Your task to perform on an android device: turn on javascript in the chrome app Image 0: 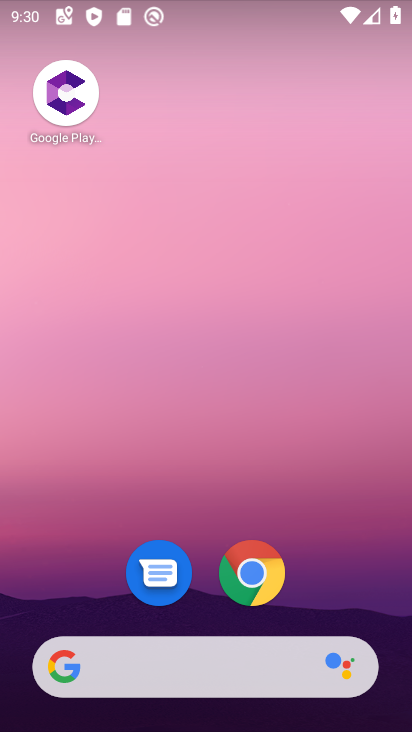
Step 0: click (236, 580)
Your task to perform on an android device: turn on javascript in the chrome app Image 1: 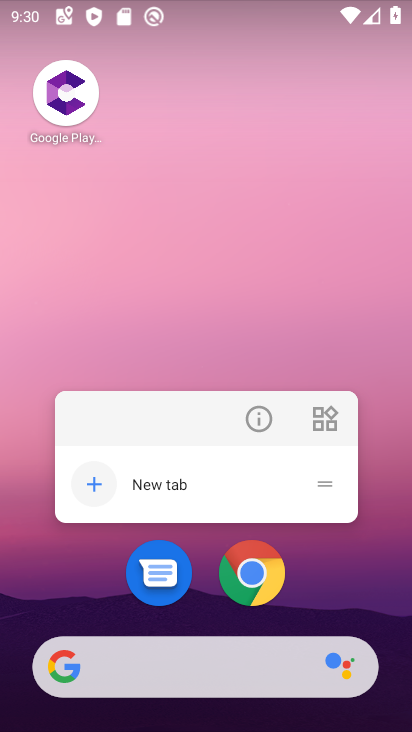
Step 1: click (264, 585)
Your task to perform on an android device: turn on javascript in the chrome app Image 2: 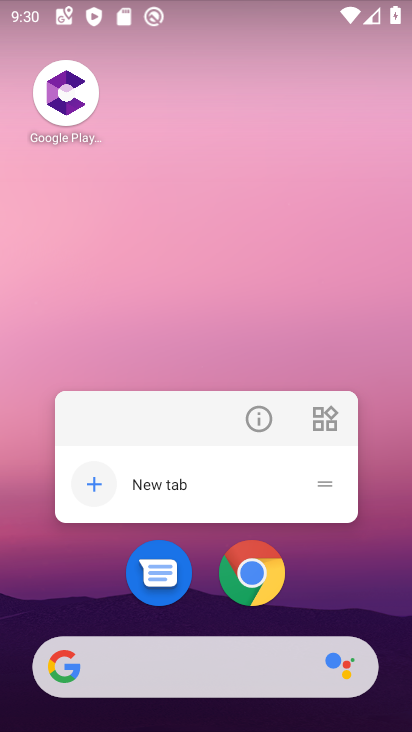
Step 2: click (254, 723)
Your task to perform on an android device: turn on javascript in the chrome app Image 3: 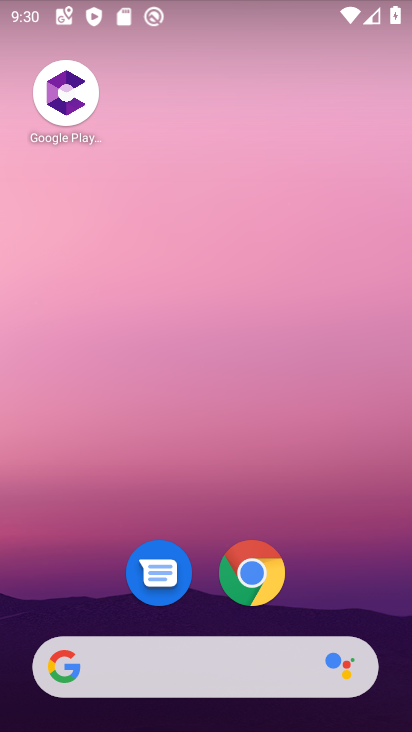
Step 3: click (245, 602)
Your task to perform on an android device: turn on javascript in the chrome app Image 4: 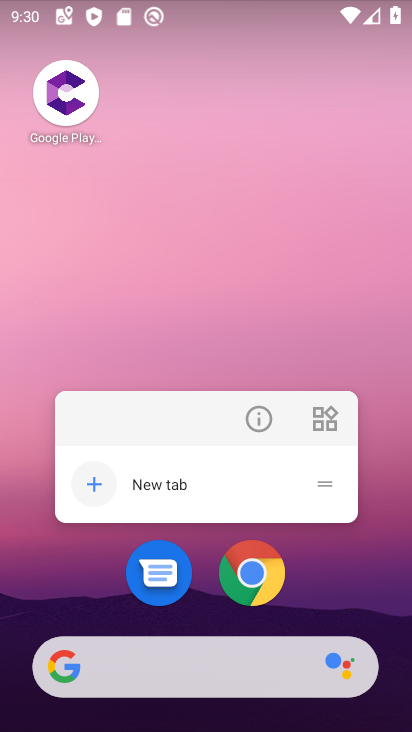
Step 4: click (245, 602)
Your task to perform on an android device: turn on javascript in the chrome app Image 5: 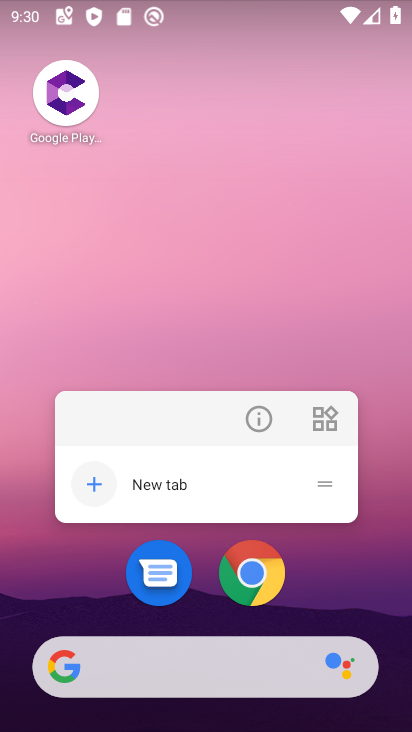
Step 5: click (245, 602)
Your task to perform on an android device: turn on javascript in the chrome app Image 6: 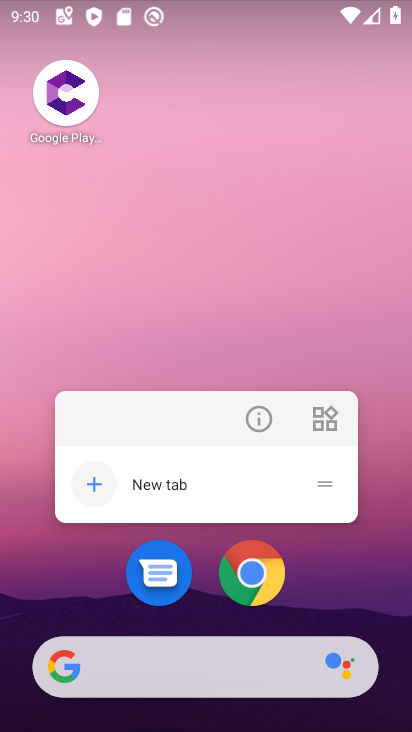
Step 6: click (245, 602)
Your task to perform on an android device: turn on javascript in the chrome app Image 7: 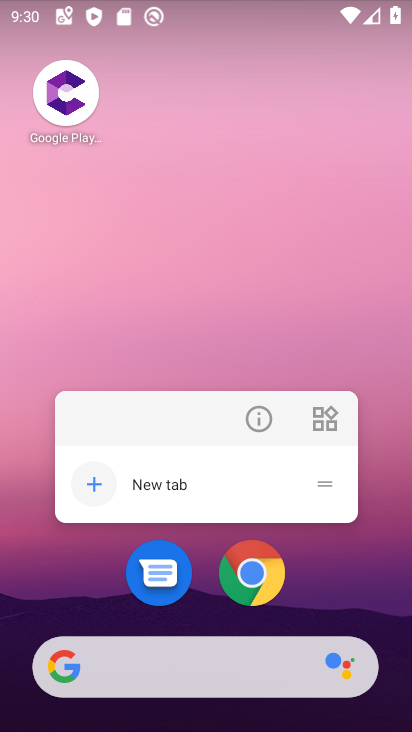
Step 7: click (245, 602)
Your task to perform on an android device: turn on javascript in the chrome app Image 8: 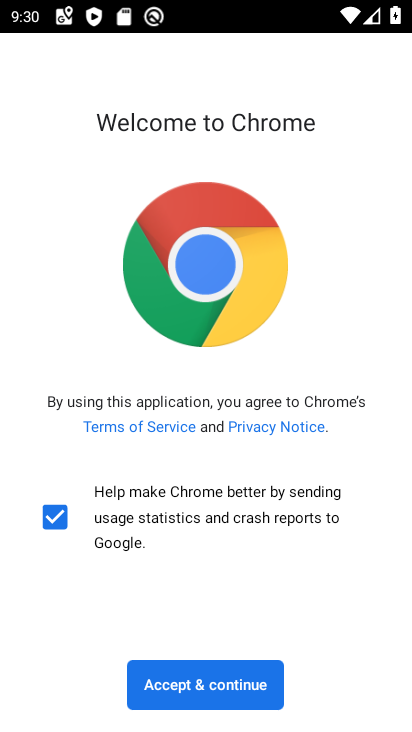
Step 8: click (230, 702)
Your task to perform on an android device: turn on javascript in the chrome app Image 9: 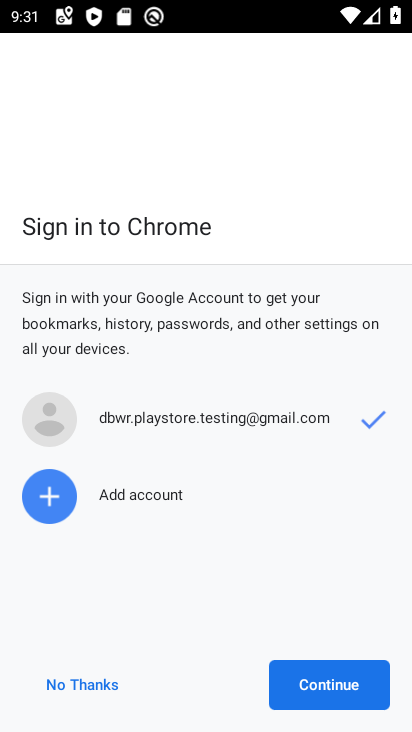
Step 9: click (380, 690)
Your task to perform on an android device: turn on javascript in the chrome app Image 10: 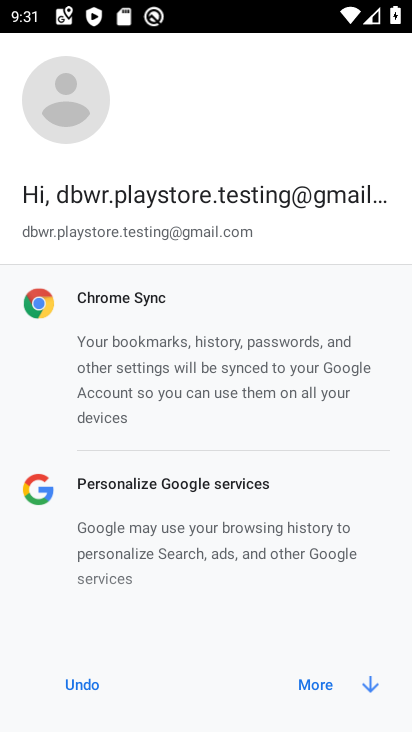
Step 10: click (380, 690)
Your task to perform on an android device: turn on javascript in the chrome app Image 11: 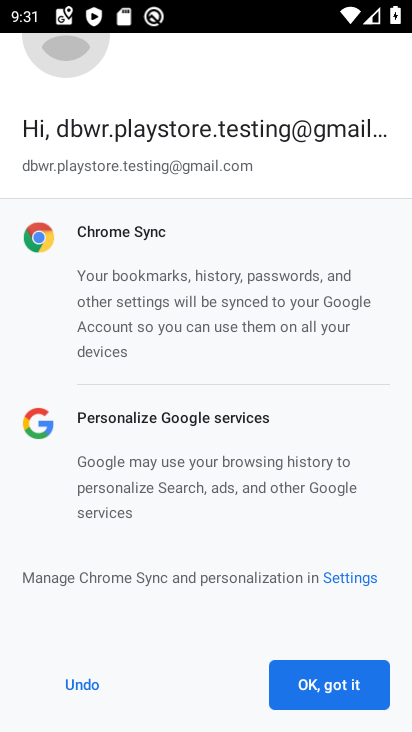
Step 11: click (380, 690)
Your task to perform on an android device: turn on javascript in the chrome app Image 12: 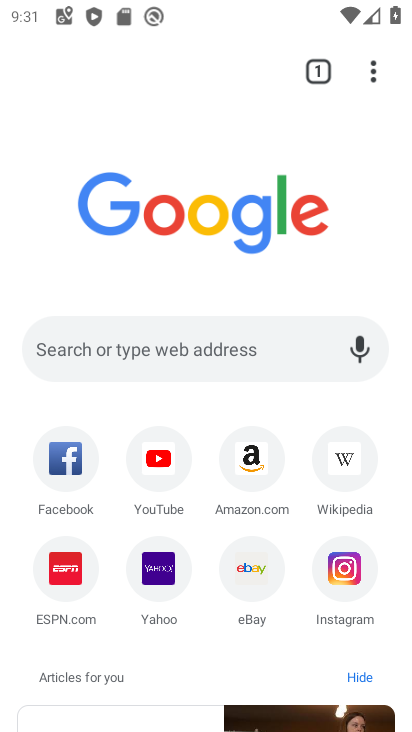
Step 12: drag from (375, 65) to (139, 608)
Your task to perform on an android device: turn on javascript in the chrome app Image 13: 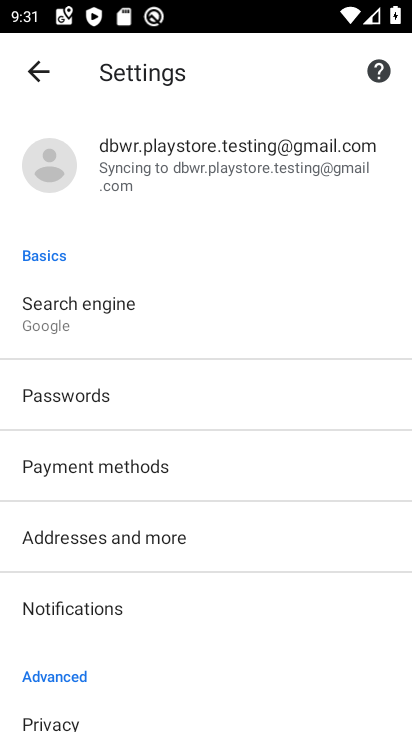
Step 13: drag from (302, 615) to (305, 291)
Your task to perform on an android device: turn on javascript in the chrome app Image 14: 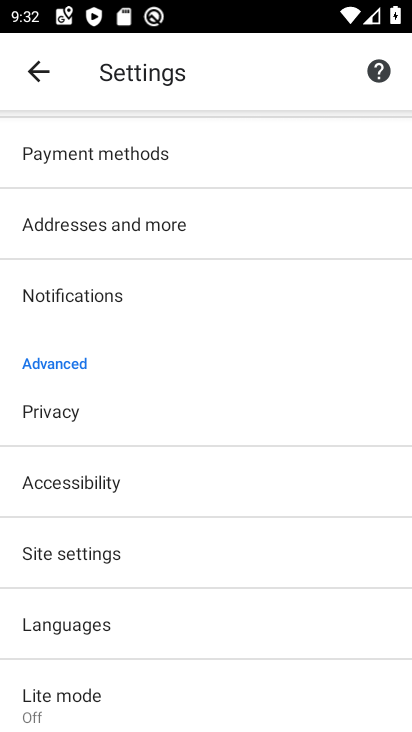
Step 14: click (100, 568)
Your task to perform on an android device: turn on javascript in the chrome app Image 15: 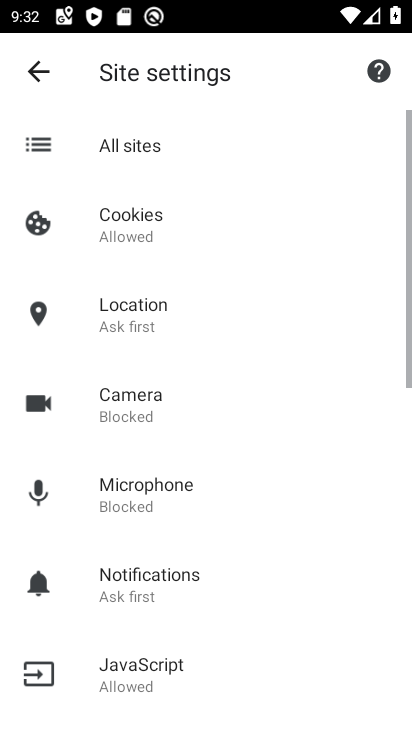
Step 15: drag from (177, 596) to (214, 169)
Your task to perform on an android device: turn on javascript in the chrome app Image 16: 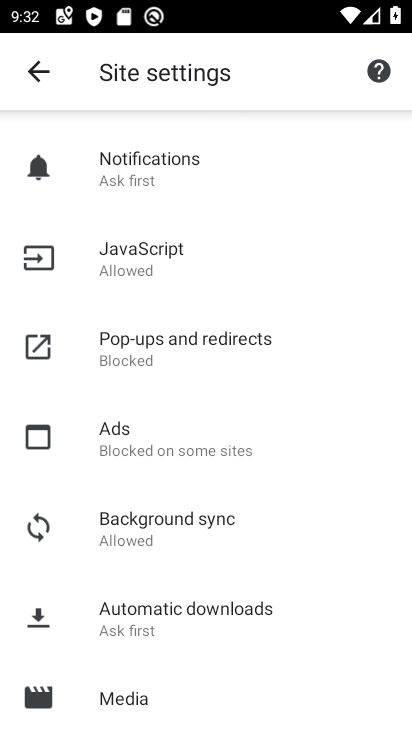
Step 16: drag from (153, 661) to (180, 730)
Your task to perform on an android device: turn on javascript in the chrome app Image 17: 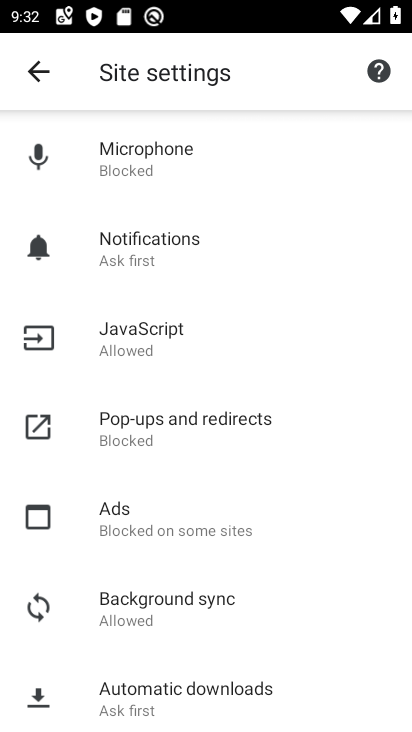
Step 17: click (190, 362)
Your task to perform on an android device: turn on javascript in the chrome app Image 18: 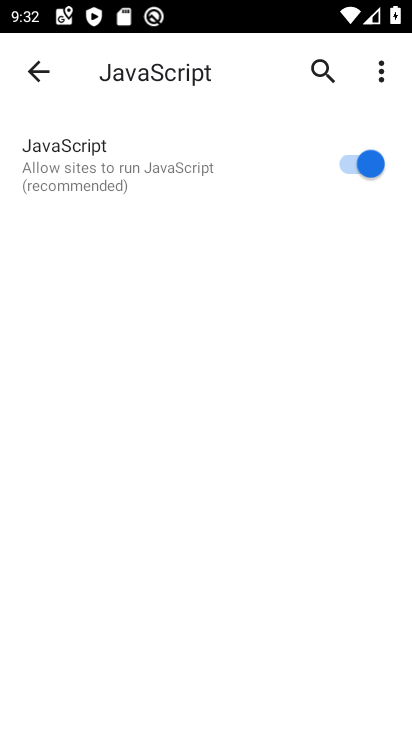
Step 18: task complete